Your task to perform on an android device: Open Google Maps and go to "Timeline" Image 0: 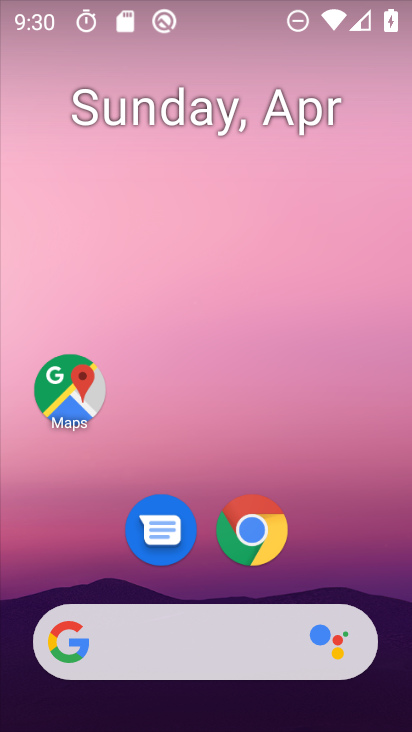
Step 0: click (60, 394)
Your task to perform on an android device: Open Google Maps and go to "Timeline" Image 1: 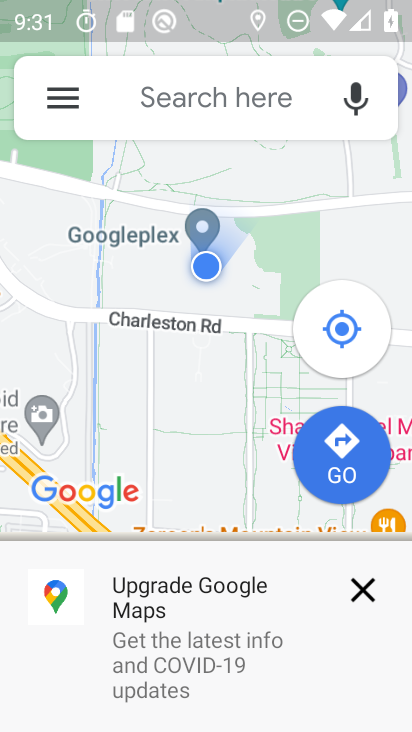
Step 1: click (65, 99)
Your task to perform on an android device: Open Google Maps and go to "Timeline" Image 2: 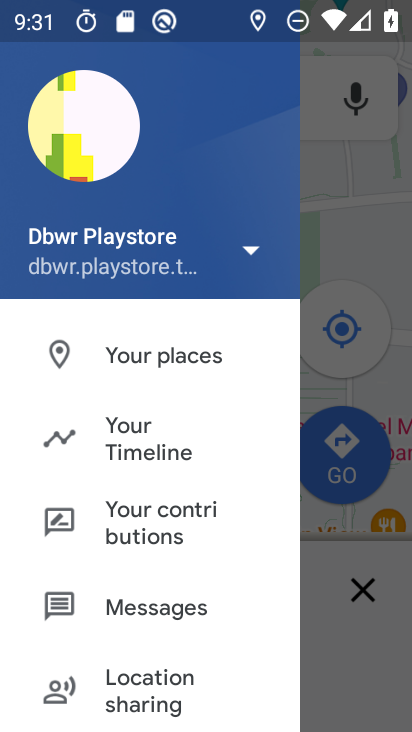
Step 2: click (144, 437)
Your task to perform on an android device: Open Google Maps and go to "Timeline" Image 3: 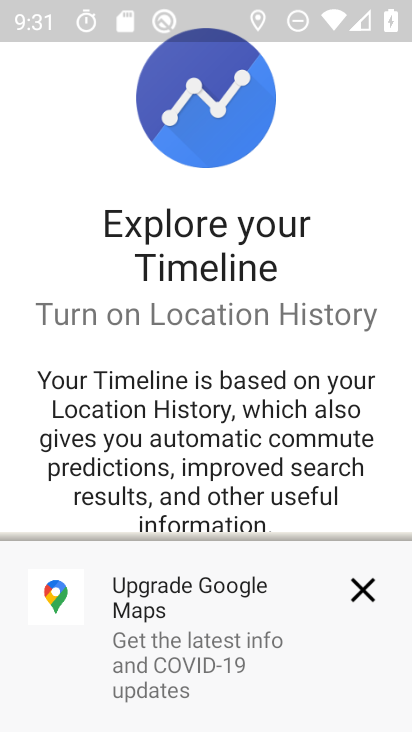
Step 3: click (373, 584)
Your task to perform on an android device: Open Google Maps and go to "Timeline" Image 4: 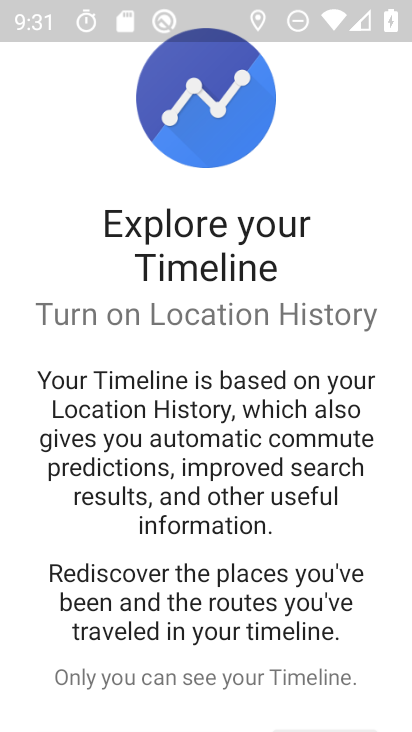
Step 4: drag from (286, 520) to (272, 177)
Your task to perform on an android device: Open Google Maps and go to "Timeline" Image 5: 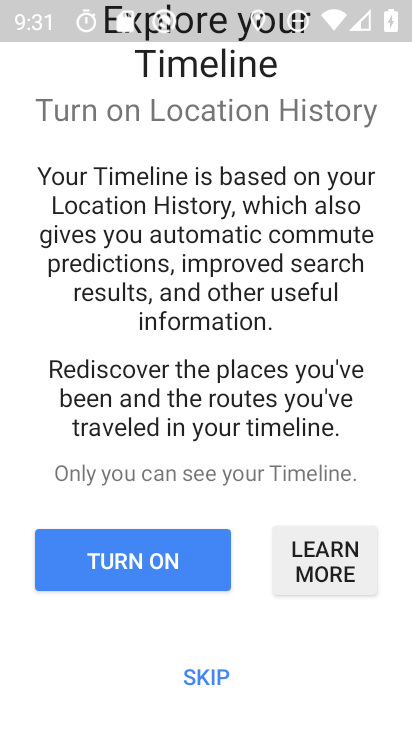
Step 5: click (203, 683)
Your task to perform on an android device: Open Google Maps and go to "Timeline" Image 6: 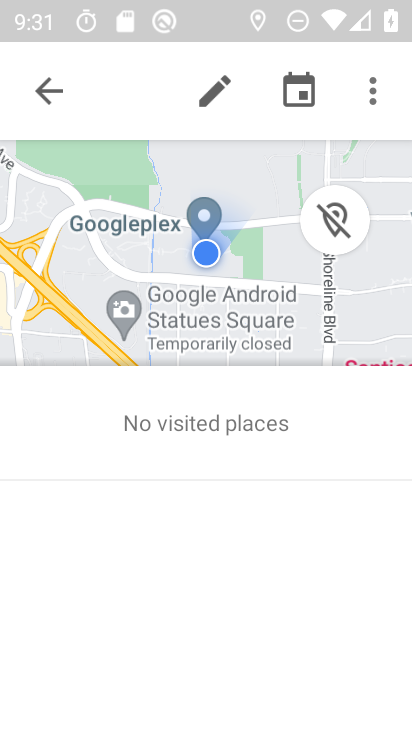
Step 6: task complete